Your task to perform on an android device: open chrome and create a bookmark for the current page Image 0: 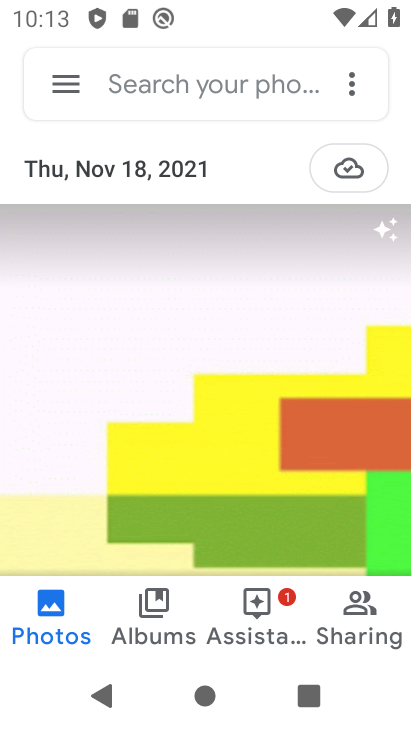
Step 0: press home button
Your task to perform on an android device: open chrome and create a bookmark for the current page Image 1: 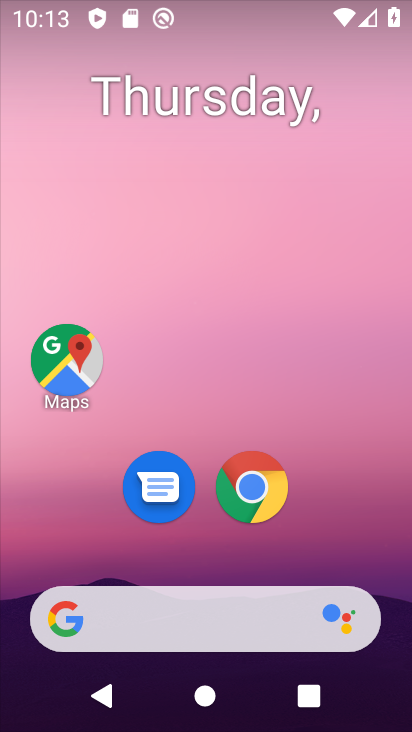
Step 1: click (254, 503)
Your task to perform on an android device: open chrome and create a bookmark for the current page Image 2: 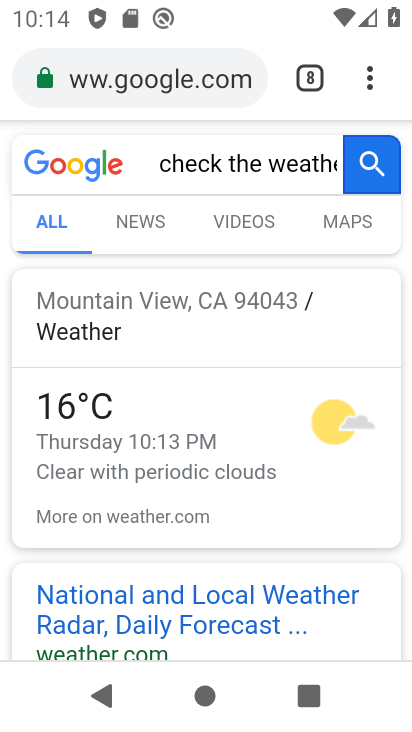
Step 2: click (371, 78)
Your task to perform on an android device: open chrome and create a bookmark for the current page Image 3: 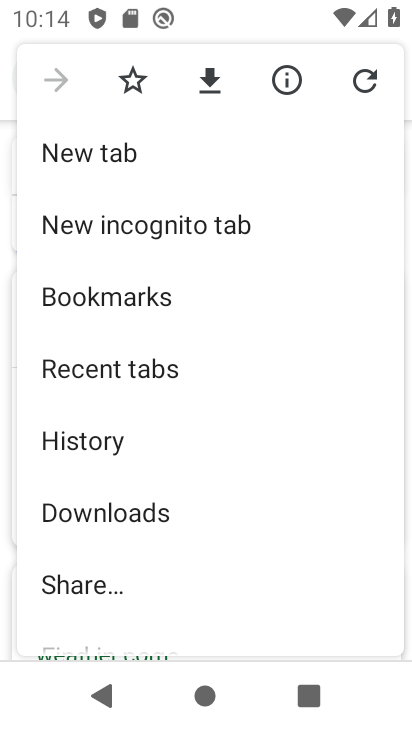
Step 3: click (133, 81)
Your task to perform on an android device: open chrome and create a bookmark for the current page Image 4: 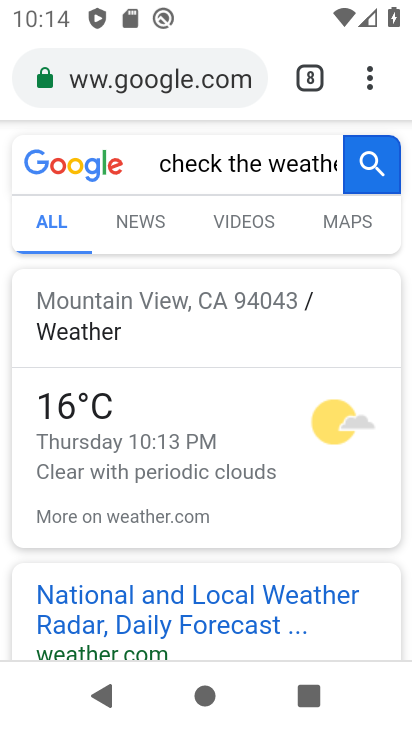
Step 4: task complete